Your task to perform on an android device: search for starred emails in the gmail app Image 0: 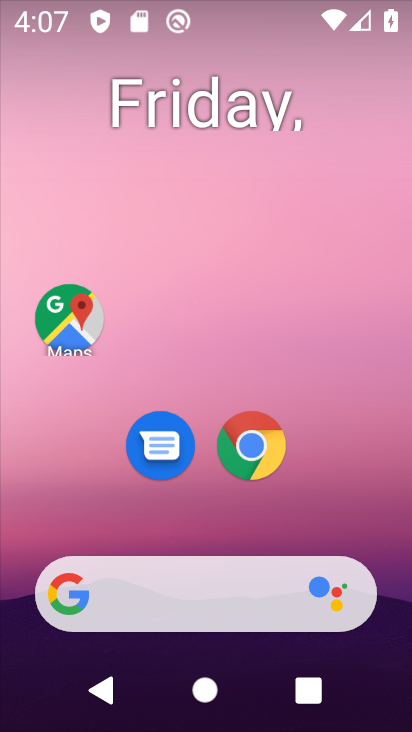
Step 0: press home button
Your task to perform on an android device: search for starred emails in the gmail app Image 1: 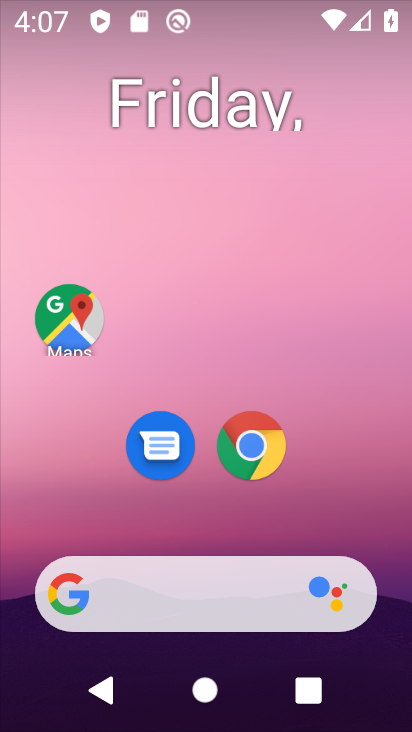
Step 1: drag from (279, 526) to (270, 24)
Your task to perform on an android device: search for starred emails in the gmail app Image 2: 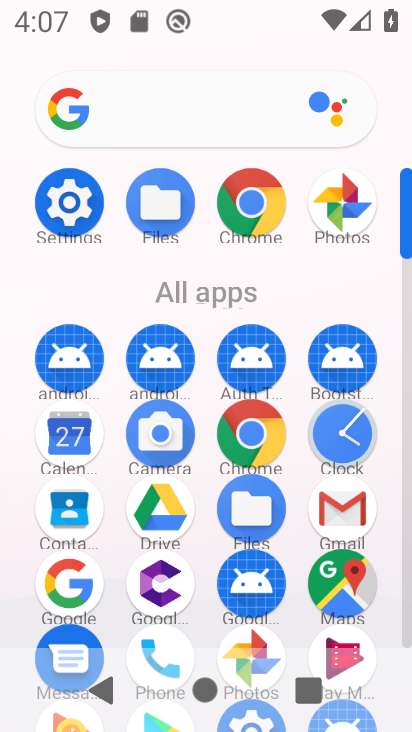
Step 2: click (332, 506)
Your task to perform on an android device: search for starred emails in the gmail app Image 3: 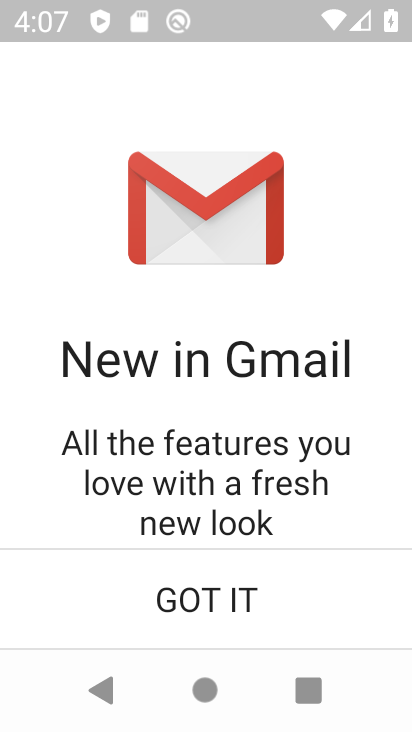
Step 3: click (213, 599)
Your task to perform on an android device: search for starred emails in the gmail app Image 4: 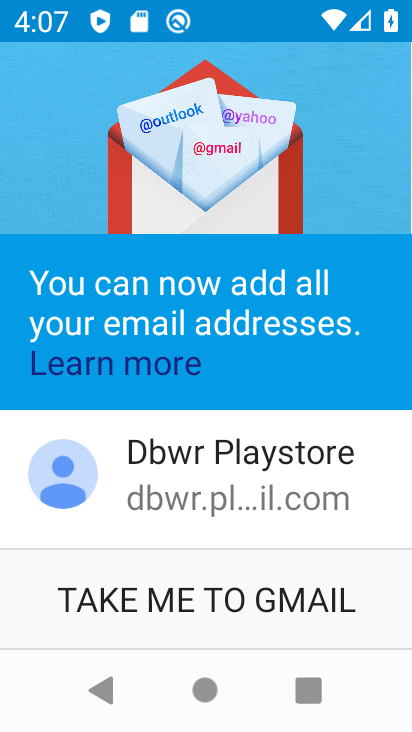
Step 4: click (215, 596)
Your task to perform on an android device: search for starred emails in the gmail app Image 5: 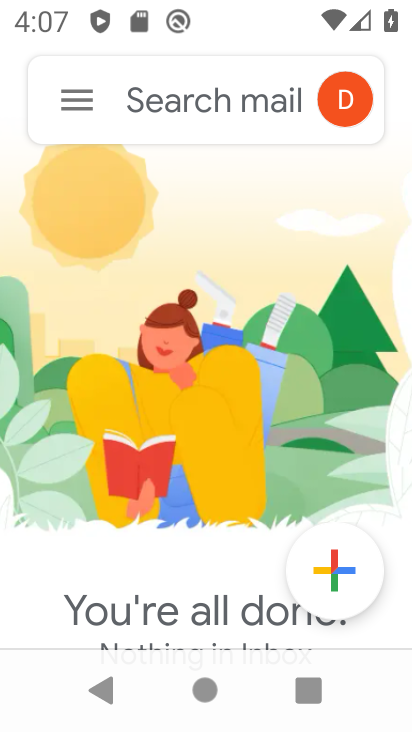
Step 5: click (84, 102)
Your task to perform on an android device: search for starred emails in the gmail app Image 6: 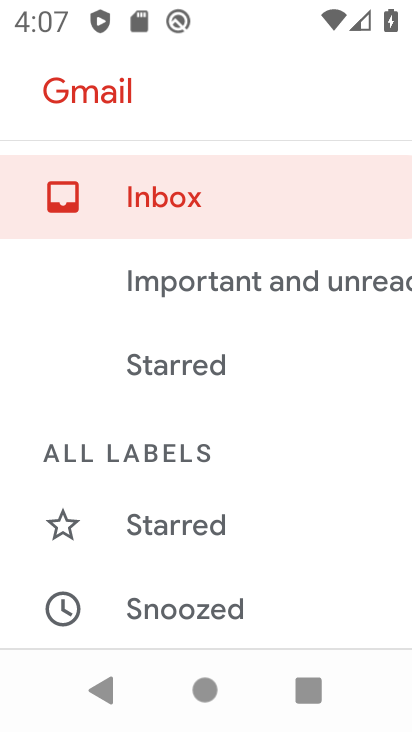
Step 6: click (178, 359)
Your task to perform on an android device: search for starred emails in the gmail app Image 7: 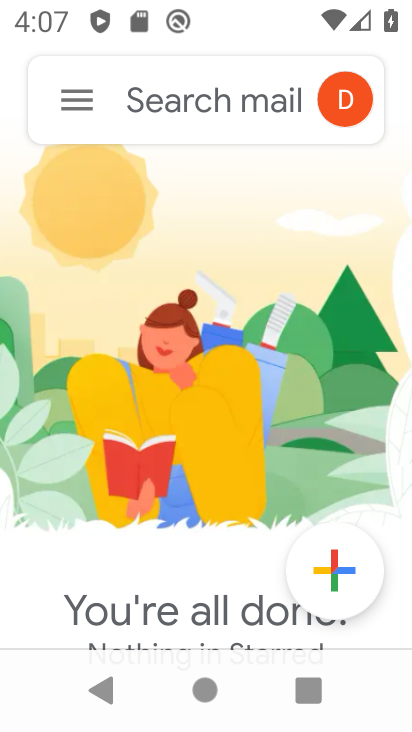
Step 7: task complete